Your task to perform on an android device: Show me the alarms in the clock app Image 0: 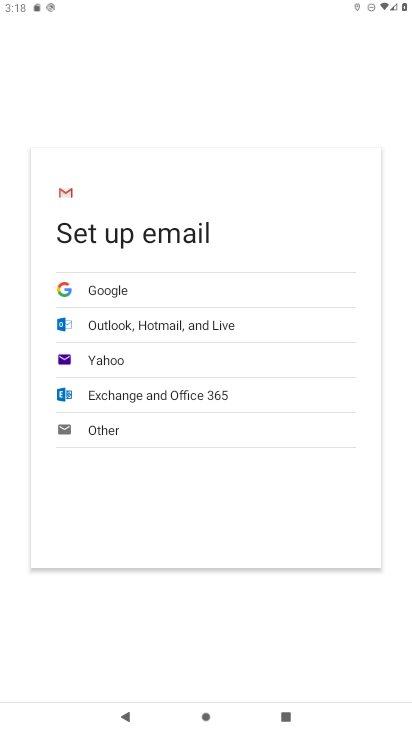
Step 0: press home button
Your task to perform on an android device: Show me the alarms in the clock app Image 1: 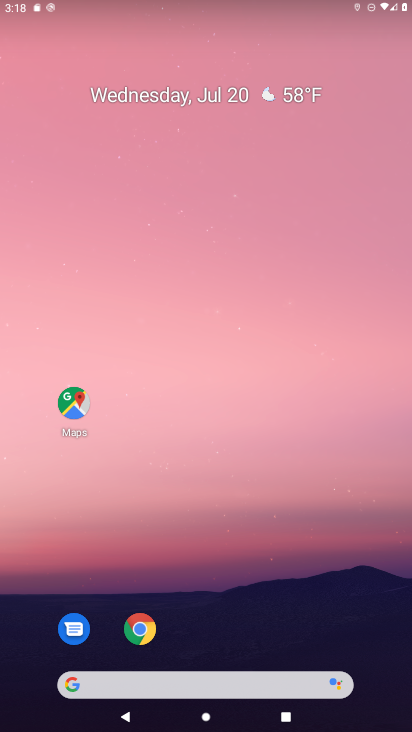
Step 1: drag from (230, 557) to (265, 137)
Your task to perform on an android device: Show me the alarms in the clock app Image 2: 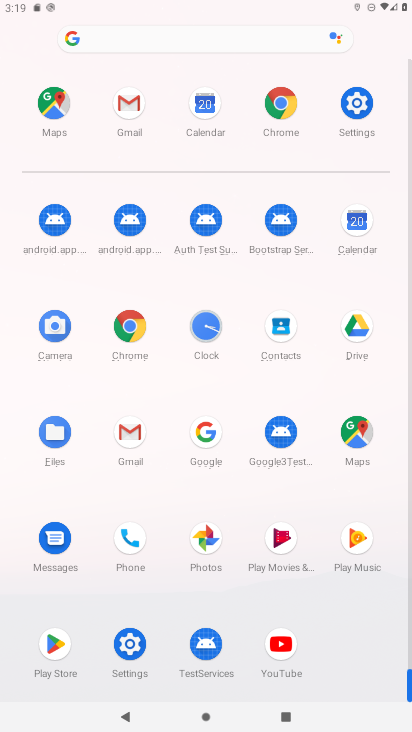
Step 2: click (199, 326)
Your task to perform on an android device: Show me the alarms in the clock app Image 3: 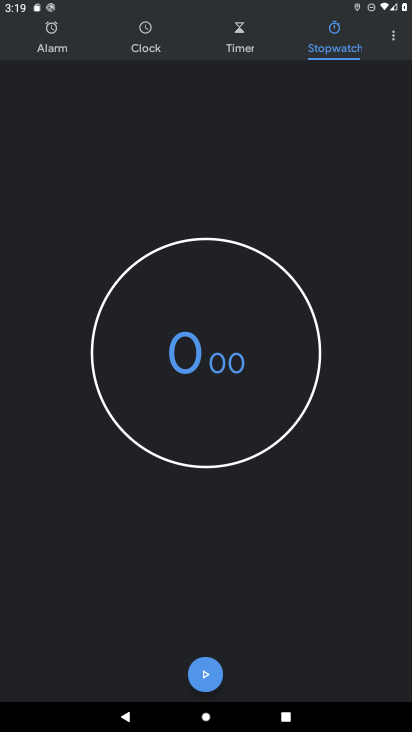
Step 3: click (55, 25)
Your task to perform on an android device: Show me the alarms in the clock app Image 4: 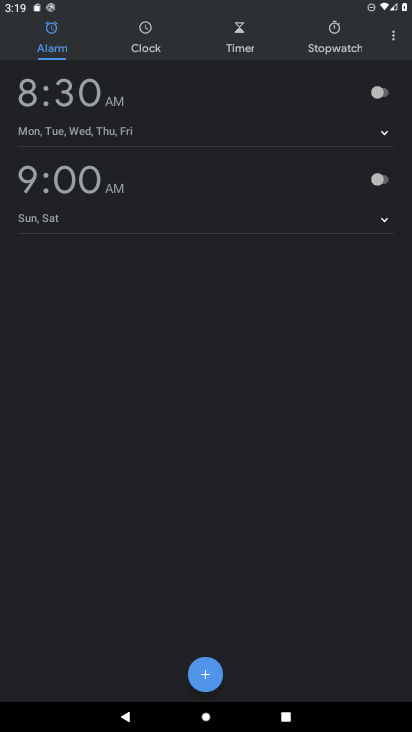
Step 4: task complete